Your task to perform on an android device: turn off location Image 0: 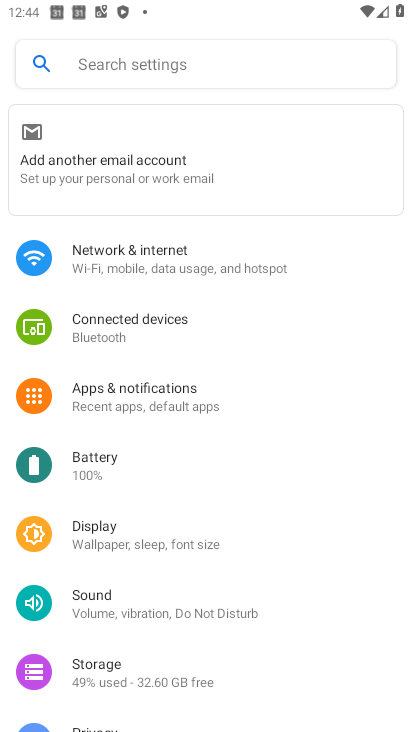
Step 0: press home button
Your task to perform on an android device: turn off location Image 1: 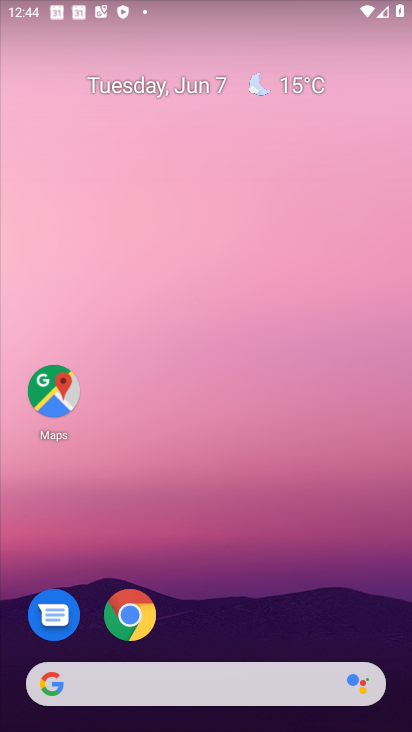
Step 1: drag from (196, 651) to (127, 105)
Your task to perform on an android device: turn off location Image 2: 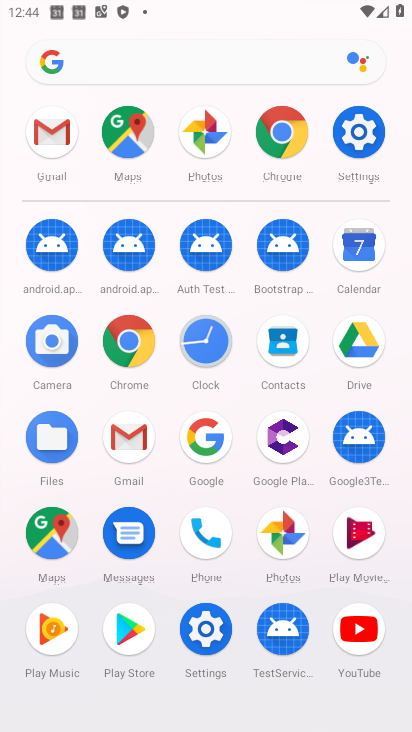
Step 2: click (362, 125)
Your task to perform on an android device: turn off location Image 3: 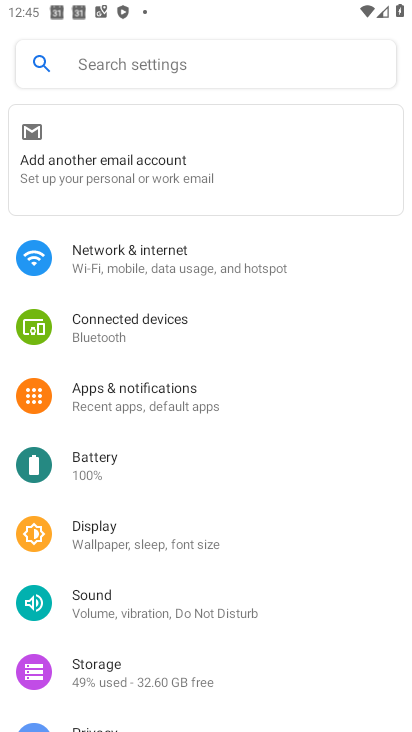
Step 3: drag from (102, 676) to (138, 319)
Your task to perform on an android device: turn off location Image 4: 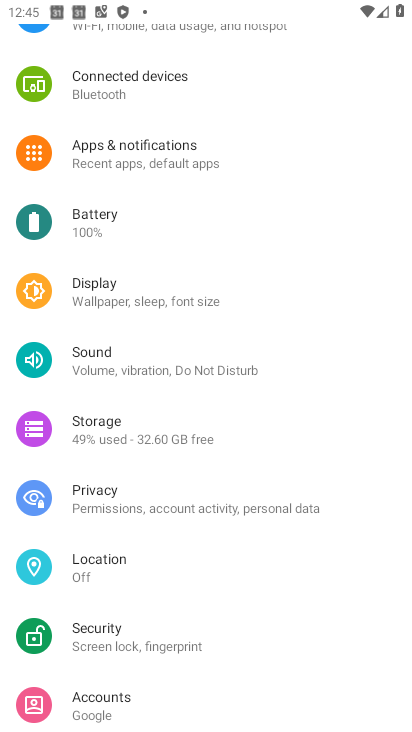
Step 4: click (99, 576)
Your task to perform on an android device: turn off location Image 5: 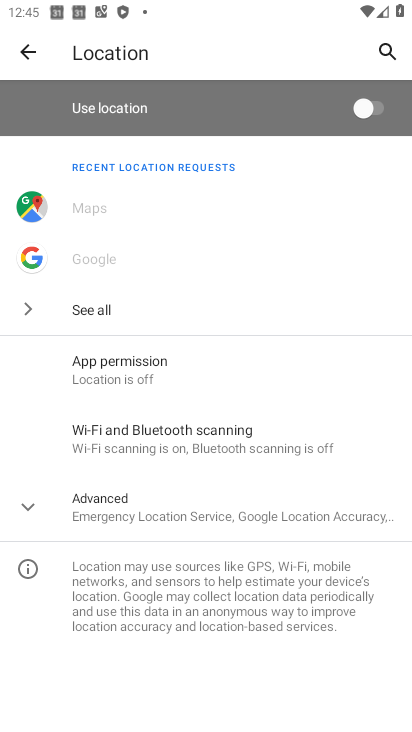
Step 5: task complete